Your task to perform on an android device: delete location history Image 0: 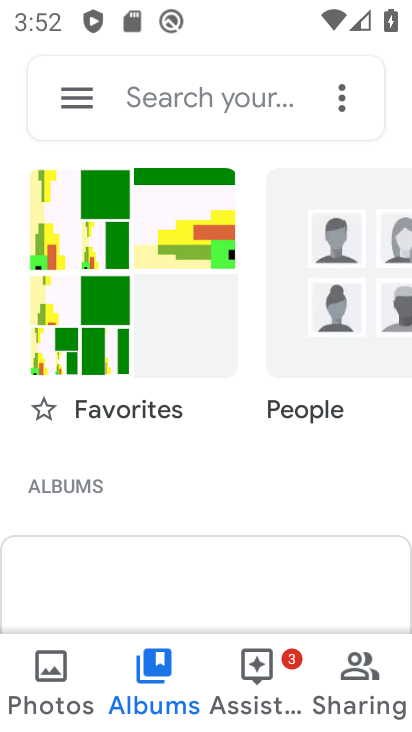
Step 0: press home button
Your task to perform on an android device: delete location history Image 1: 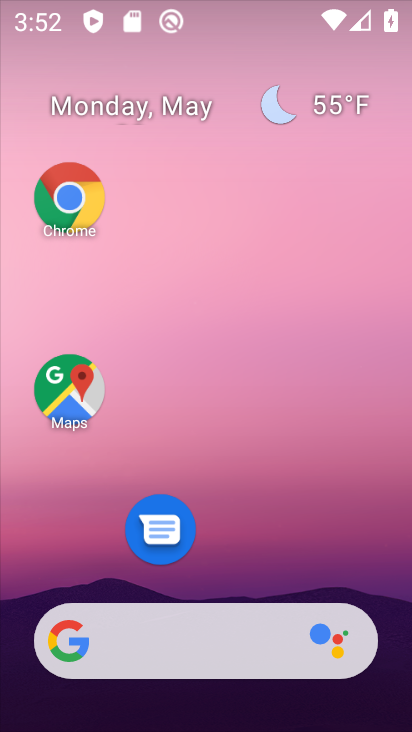
Step 1: drag from (211, 576) to (212, 68)
Your task to perform on an android device: delete location history Image 2: 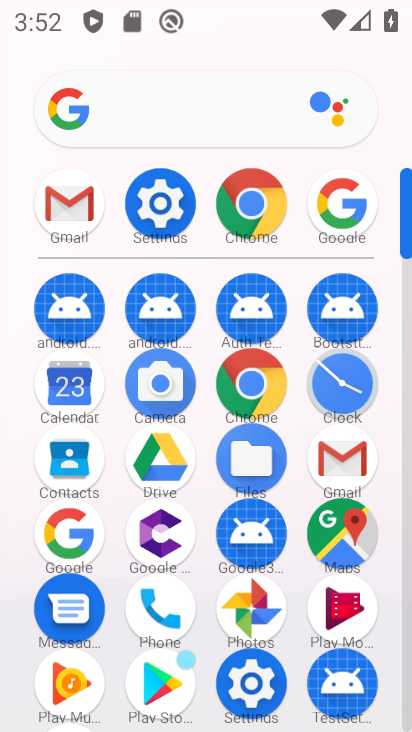
Step 2: click (166, 225)
Your task to perform on an android device: delete location history Image 3: 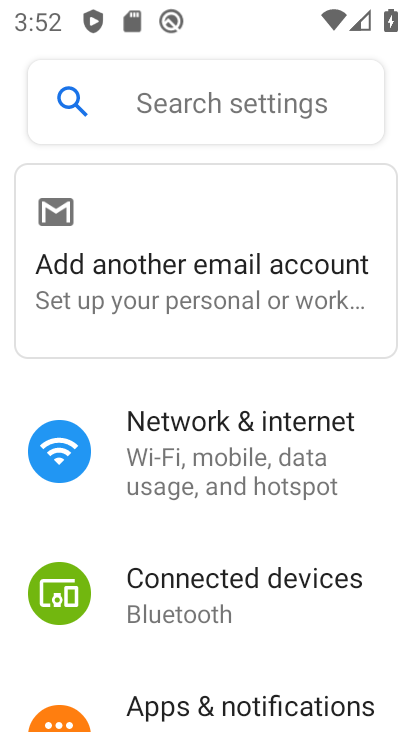
Step 3: drag from (187, 533) to (158, 170)
Your task to perform on an android device: delete location history Image 4: 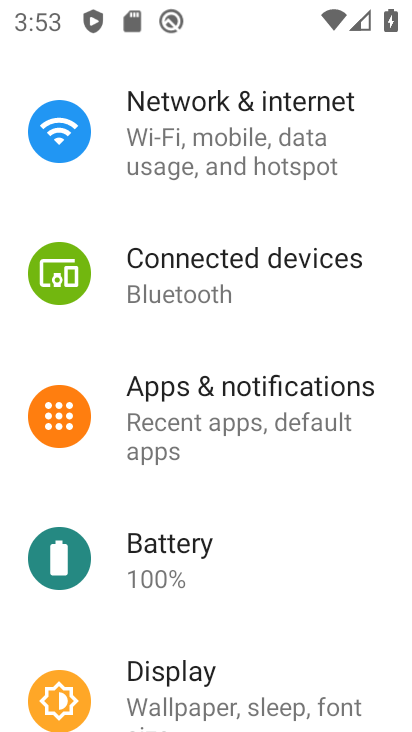
Step 4: drag from (206, 556) to (173, 244)
Your task to perform on an android device: delete location history Image 5: 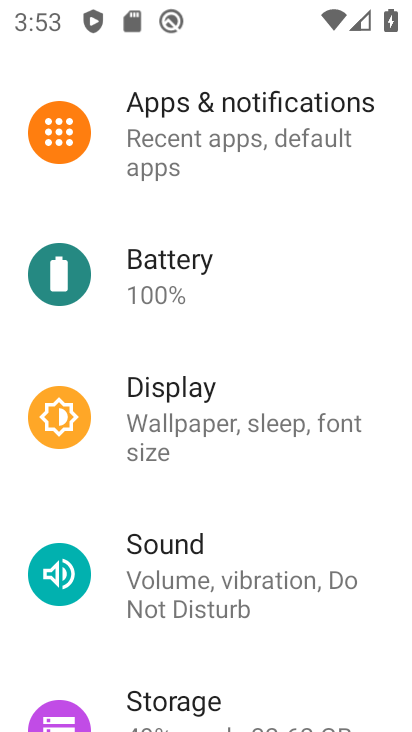
Step 5: drag from (211, 573) to (177, 267)
Your task to perform on an android device: delete location history Image 6: 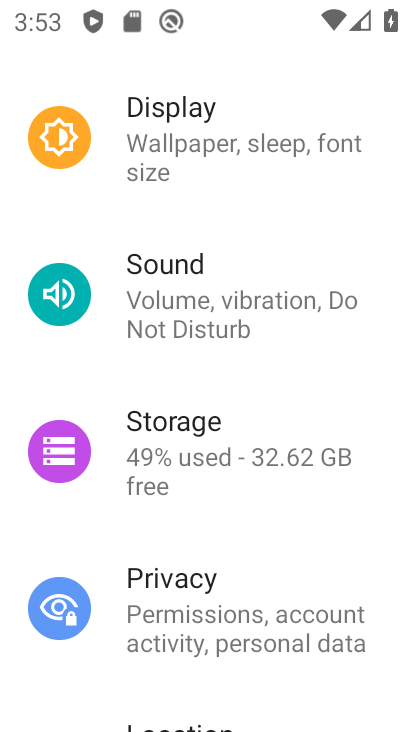
Step 6: drag from (215, 581) to (216, 253)
Your task to perform on an android device: delete location history Image 7: 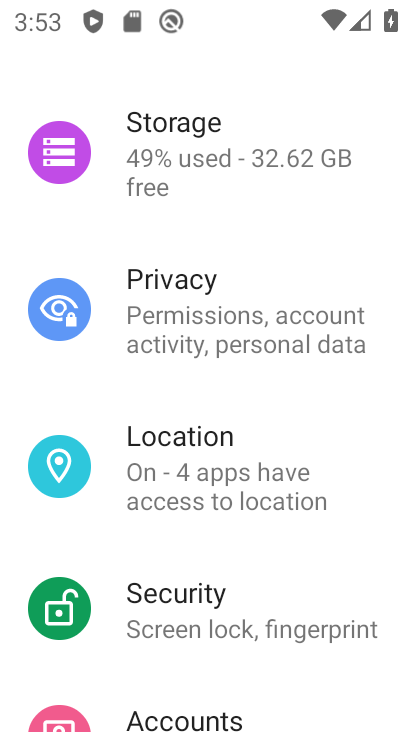
Step 7: click (250, 491)
Your task to perform on an android device: delete location history Image 8: 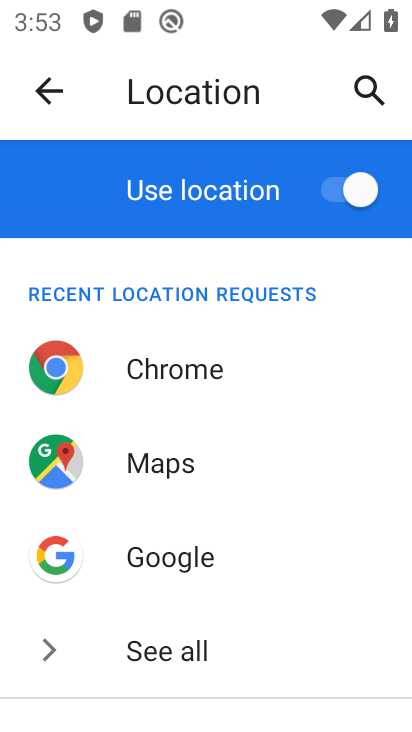
Step 8: drag from (217, 555) to (206, 322)
Your task to perform on an android device: delete location history Image 9: 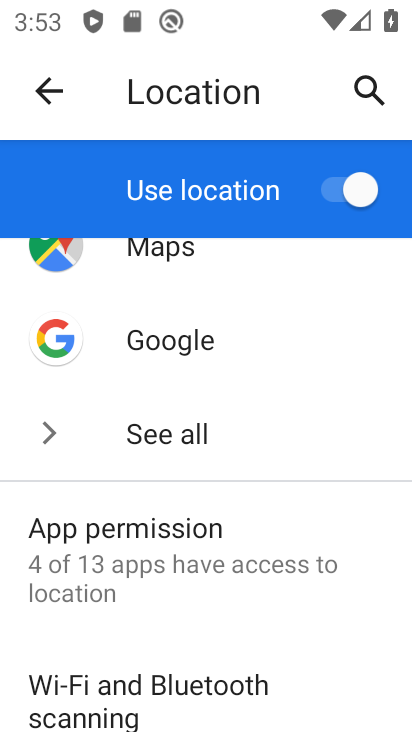
Step 9: drag from (188, 607) to (188, 401)
Your task to perform on an android device: delete location history Image 10: 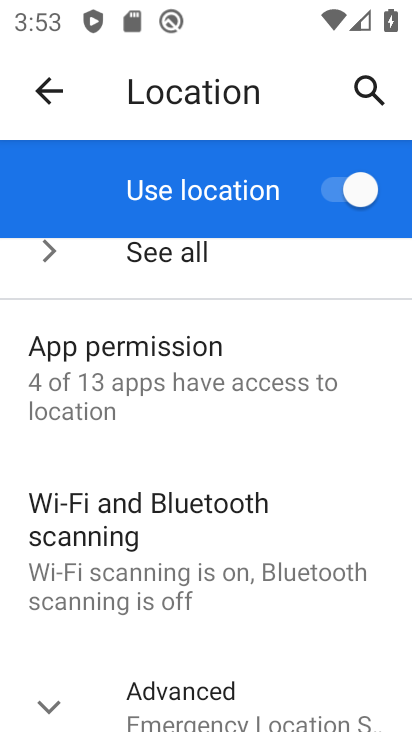
Step 10: drag from (173, 607) to (159, 408)
Your task to perform on an android device: delete location history Image 11: 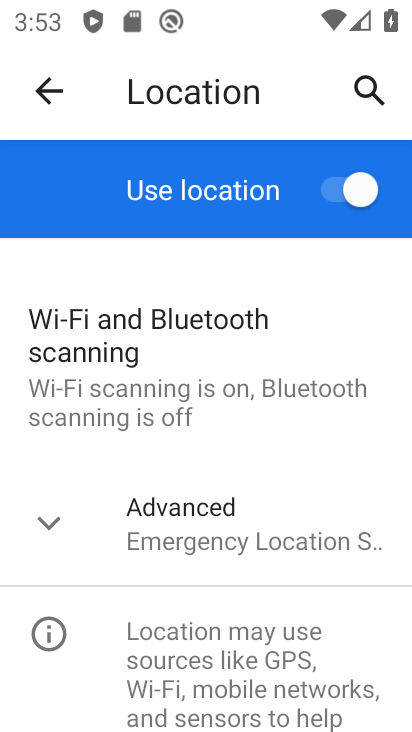
Step 11: click (158, 533)
Your task to perform on an android device: delete location history Image 12: 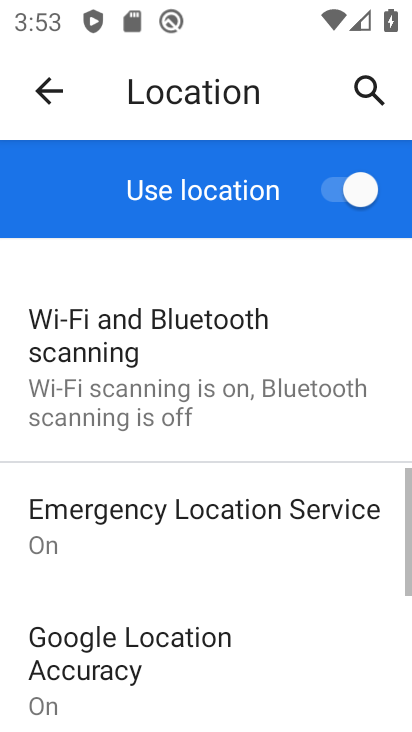
Step 12: drag from (186, 651) to (152, 395)
Your task to perform on an android device: delete location history Image 13: 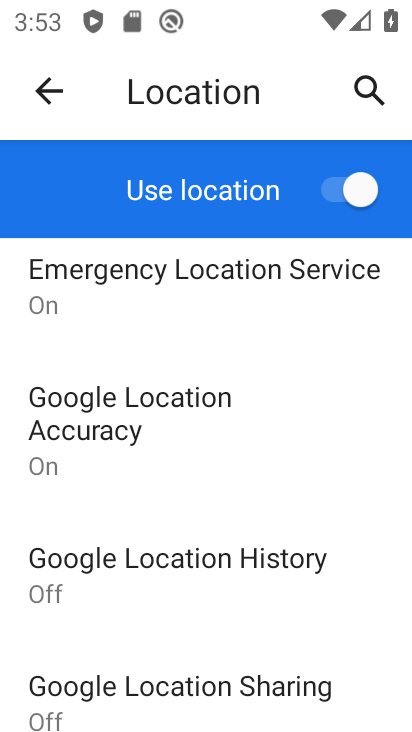
Step 13: click (219, 570)
Your task to perform on an android device: delete location history Image 14: 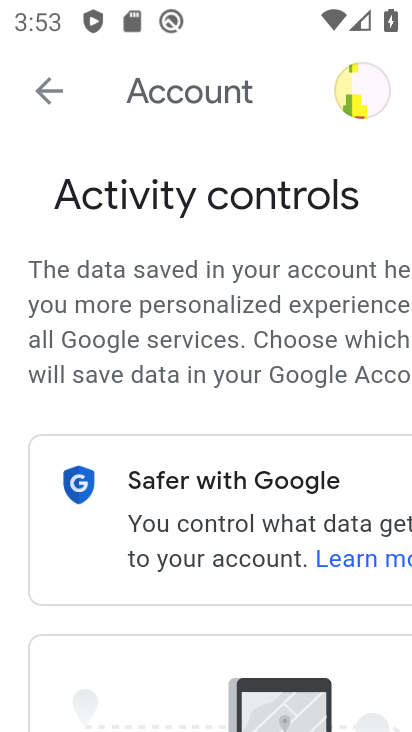
Step 14: drag from (253, 571) to (157, 335)
Your task to perform on an android device: delete location history Image 15: 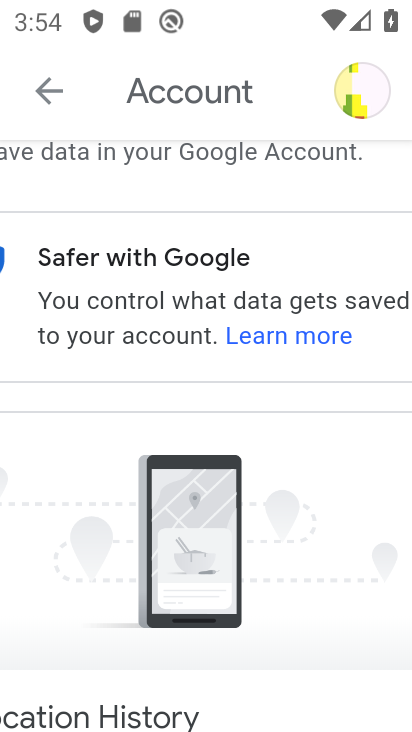
Step 15: drag from (247, 615) to (203, 209)
Your task to perform on an android device: delete location history Image 16: 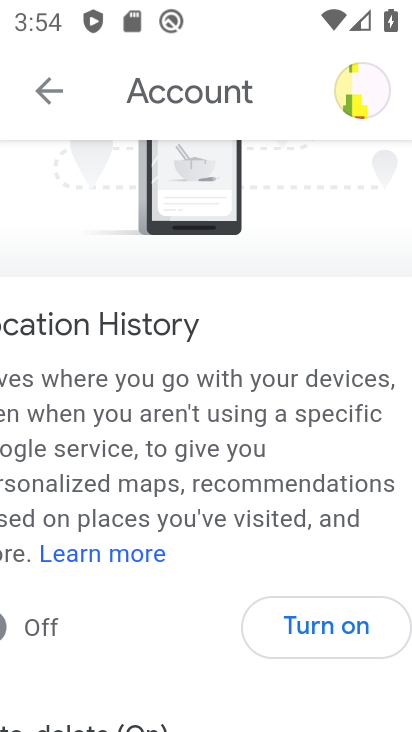
Step 16: drag from (190, 549) to (252, 303)
Your task to perform on an android device: delete location history Image 17: 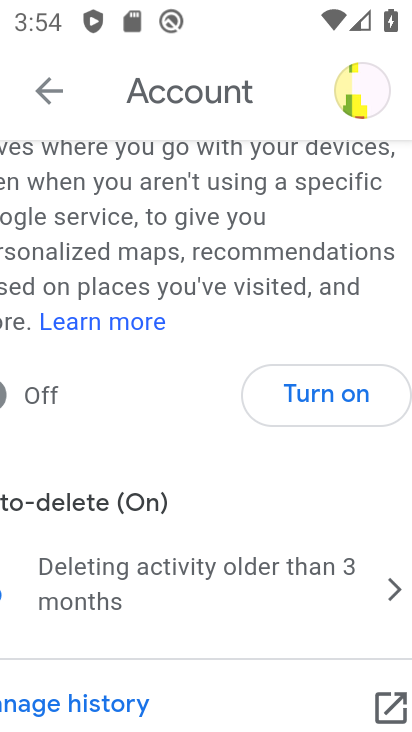
Step 17: click (241, 573)
Your task to perform on an android device: delete location history Image 18: 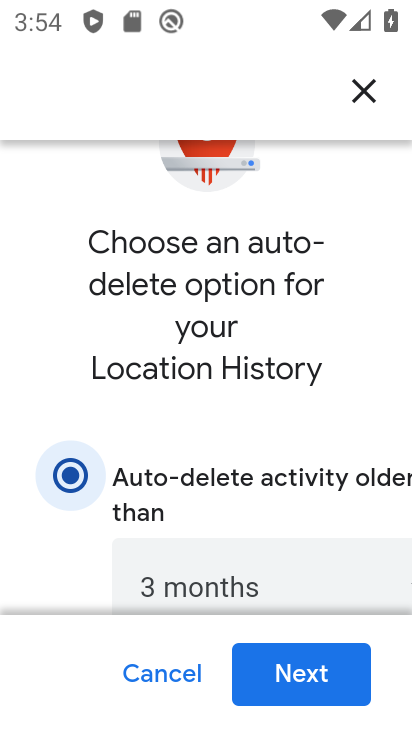
Step 18: click (291, 680)
Your task to perform on an android device: delete location history Image 19: 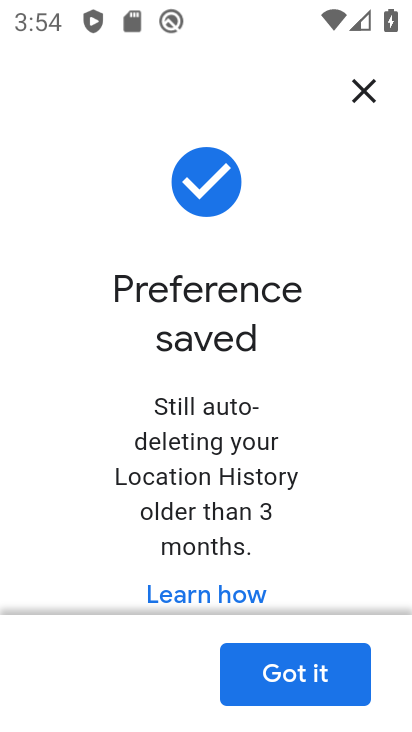
Step 19: click (315, 700)
Your task to perform on an android device: delete location history Image 20: 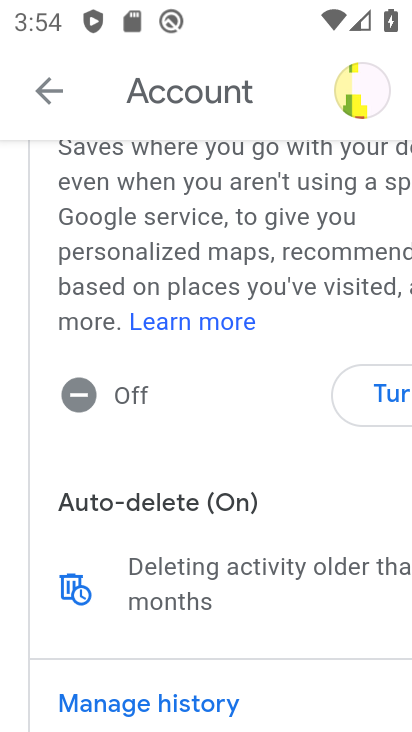
Step 20: task complete